Your task to perform on an android device: Search for pizza restaurants on Maps Image 0: 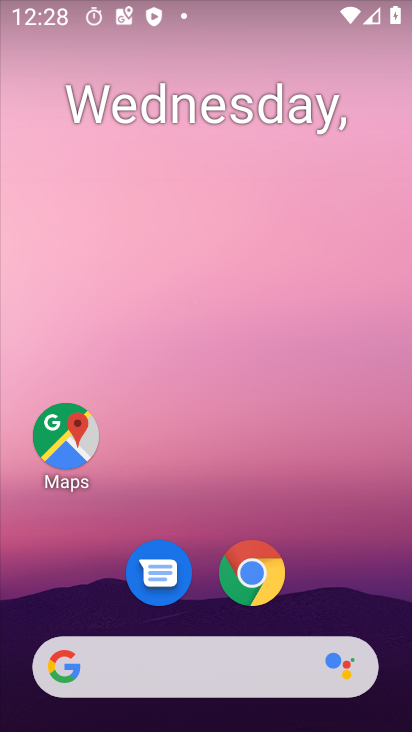
Step 0: drag from (297, 366) to (255, 189)
Your task to perform on an android device: Search for pizza restaurants on Maps Image 1: 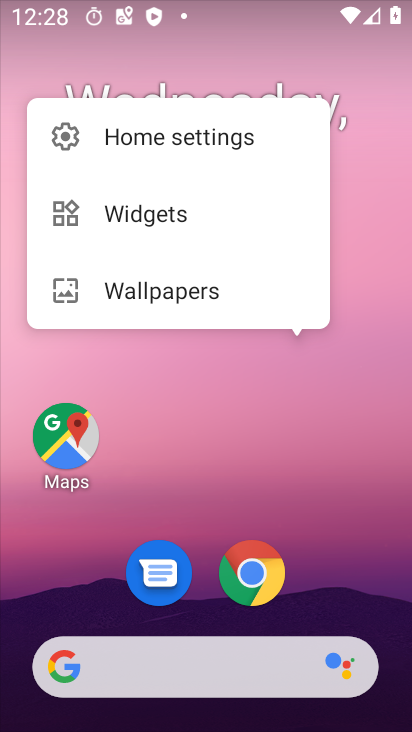
Step 1: click (271, 141)
Your task to perform on an android device: Search for pizza restaurants on Maps Image 2: 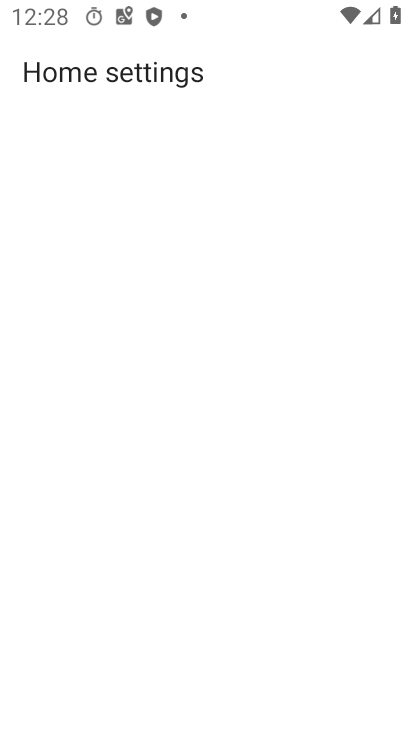
Step 2: click (271, 292)
Your task to perform on an android device: Search for pizza restaurants on Maps Image 3: 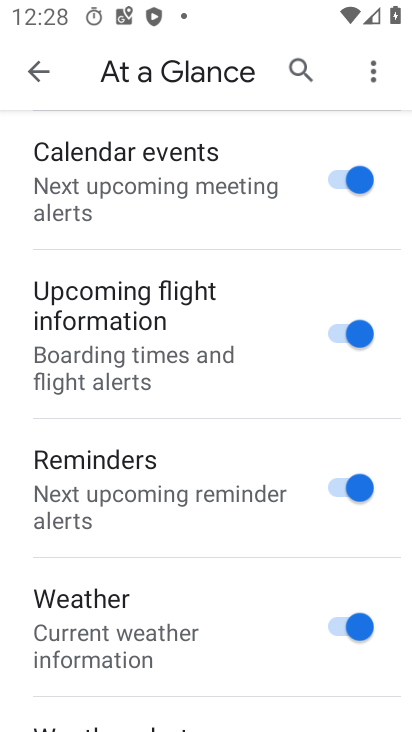
Step 3: click (41, 63)
Your task to perform on an android device: Search for pizza restaurants on Maps Image 4: 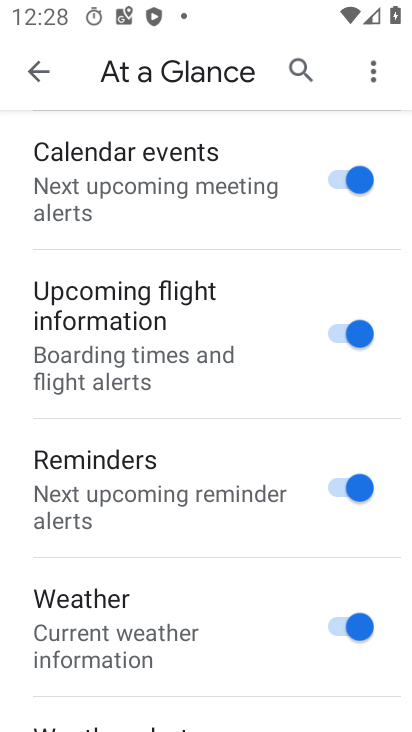
Step 4: click (40, 63)
Your task to perform on an android device: Search for pizza restaurants on Maps Image 5: 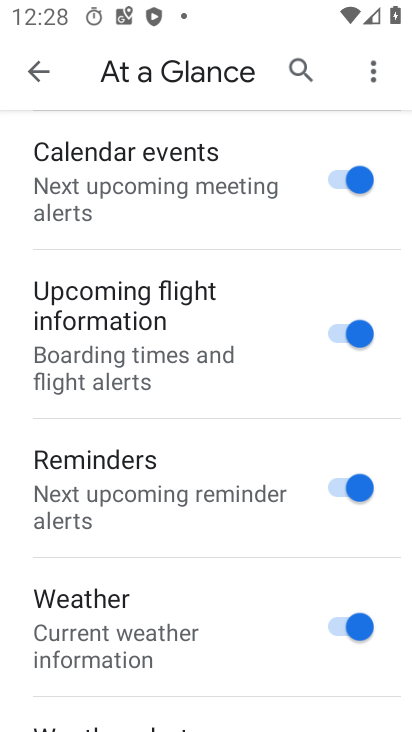
Step 5: click (38, 71)
Your task to perform on an android device: Search for pizza restaurants on Maps Image 6: 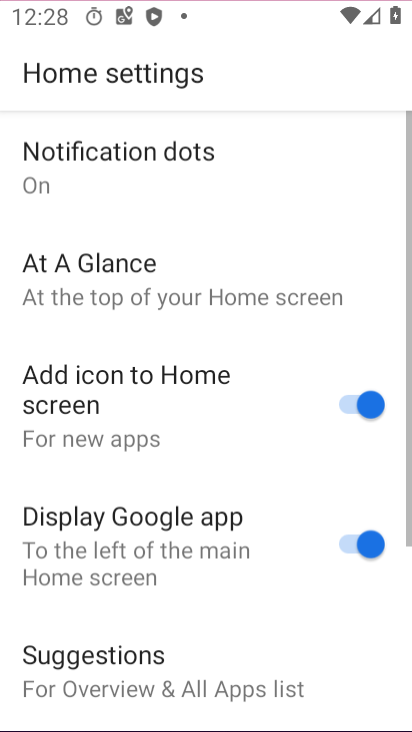
Step 6: click (45, 70)
Your task to perform on an android device: Search for pizza restaurants on Maps Image 7: 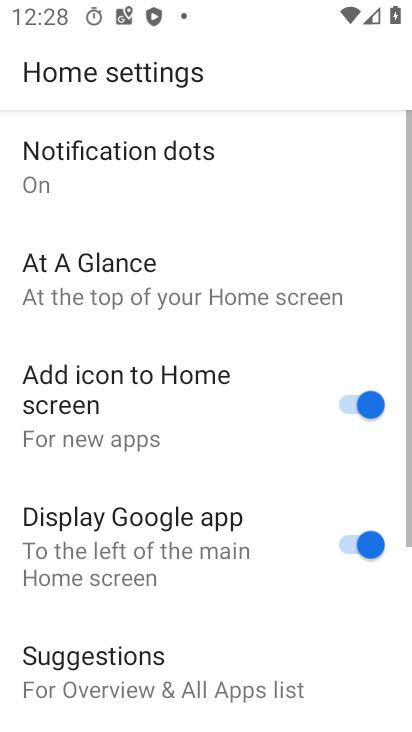
Step 7: click (46, 71)
Your task to perform on an android device: Search for pizza restaurants on Maps Image 8: 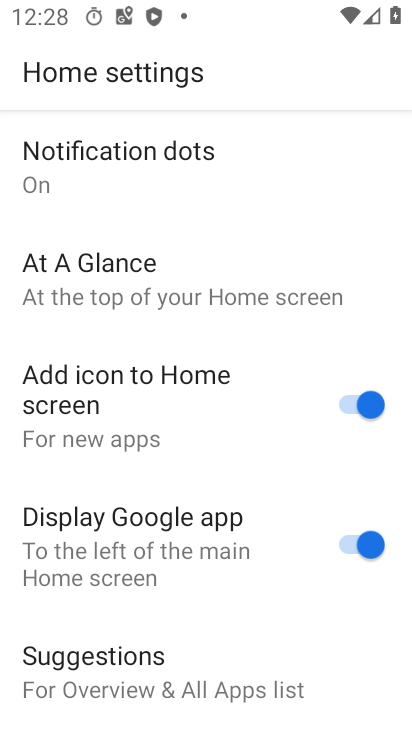
Step 8: press back button
Your task to perform on an android device: Search for pizza restaurants on Maps Image 9: 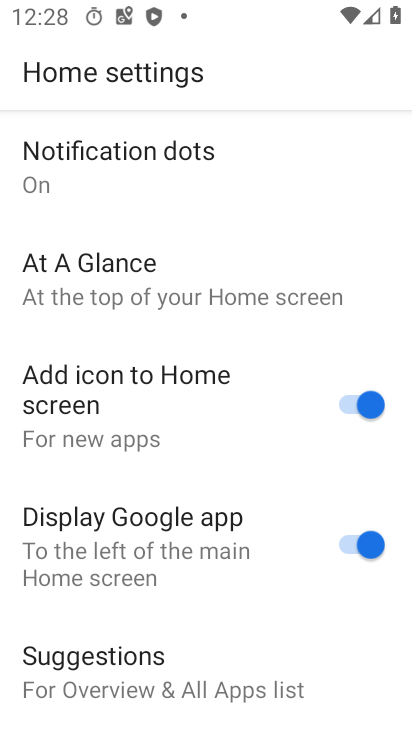
Step 9: press back button
Your task to perform on an android device: Search for pizza restaurants on Maps Image 10: 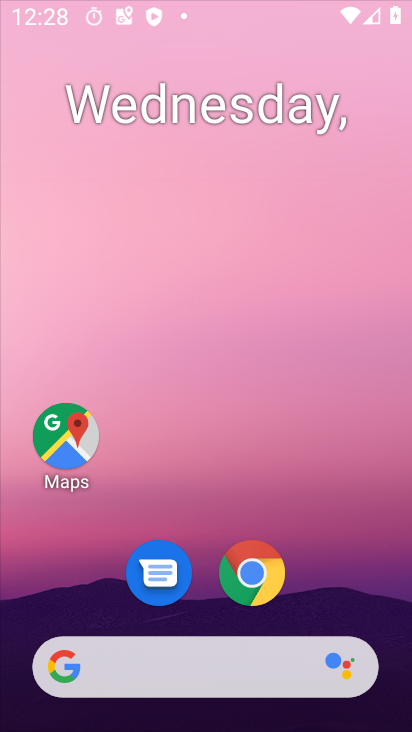
Step 10: press back button
Your task to perform on an android device: Search for pizza restaurants on Maps Image 11: 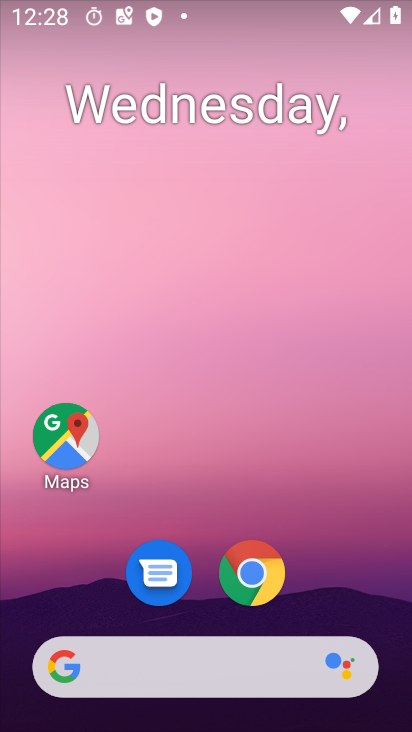
Step 11: drag from (288, 571) to (198, 236)
Your task to perform on an android device: Search for pizza restaurants on Maps Image 12: 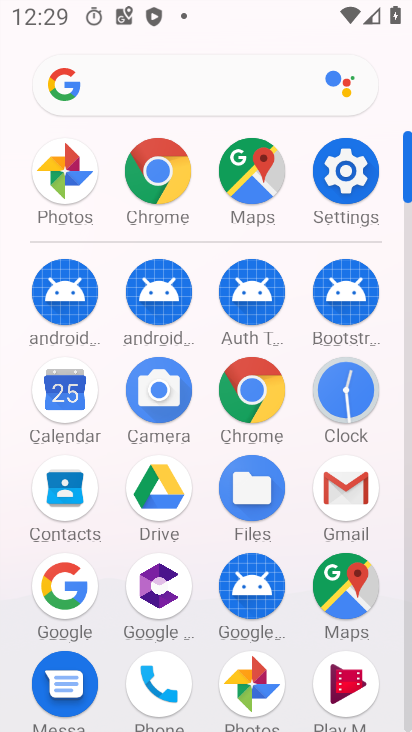
Step 12: click (341, 594)
Your task to perform on an android device: Search for pizza restaurants on Maps Image 13: 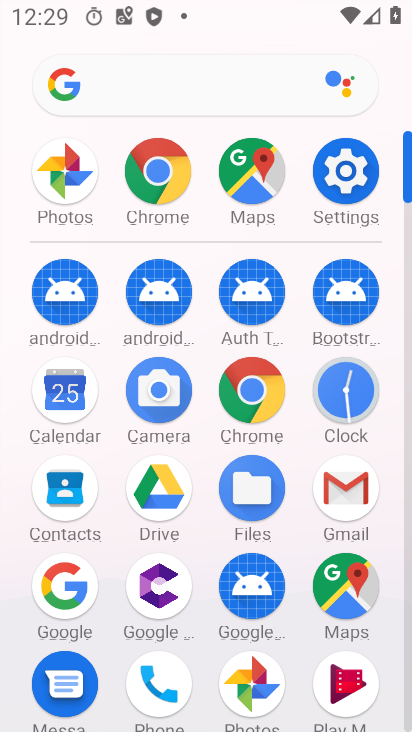
Step 13: click (345, 593)
Your task to perform on an android device: Search for pizza restaurants on Maps Image 14: 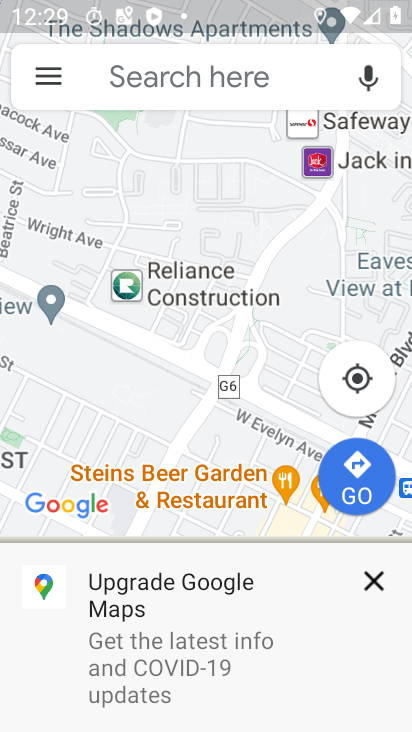
Step 14: click (114, 84)
Your task to perform on an android device: Search for pizza restaurants on Maps Image 15: 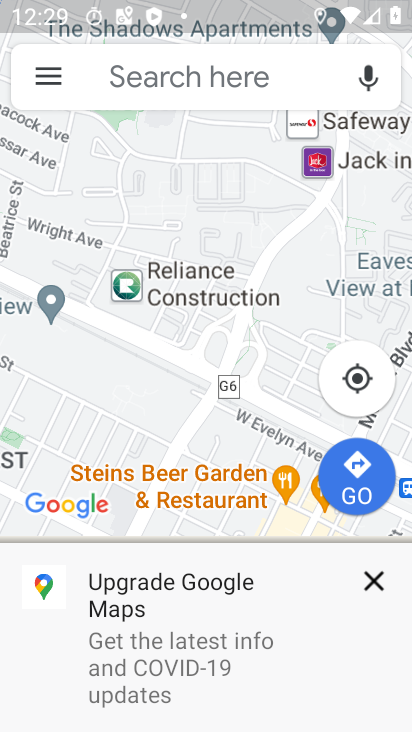
Step 15: click (118, 84)
Your task to perform on an android device: Search for pizza restaurants on Maps Image 16: 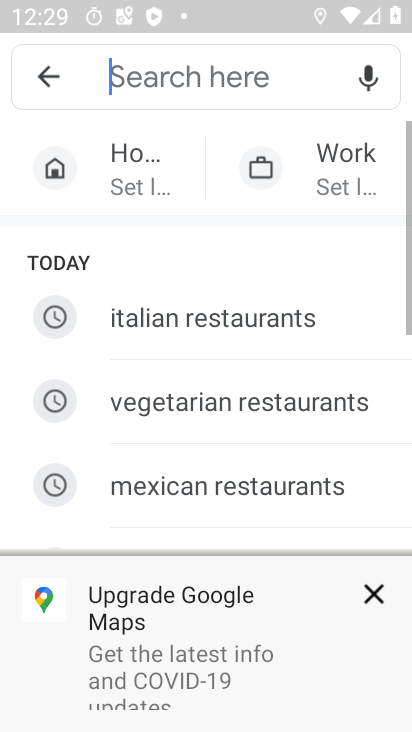
Step 16: click (119, 81)
Your task to perform on an android device: Search for pizza restaurants on Maps Image 17: 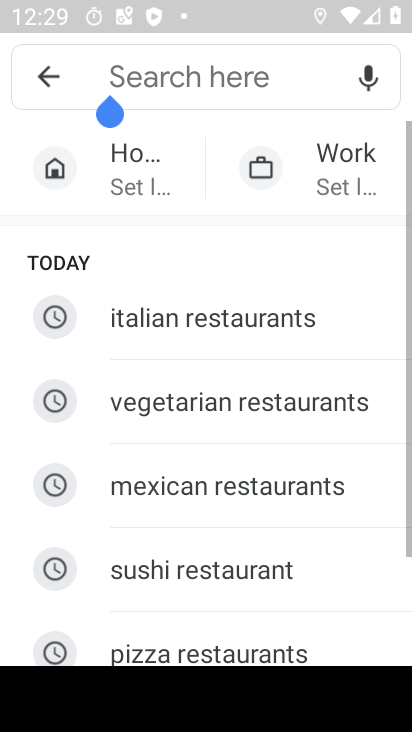
Step 17: click (120, 80)
Your task to perform on an android device: Search for pizza restaurants on Maps Image 18: 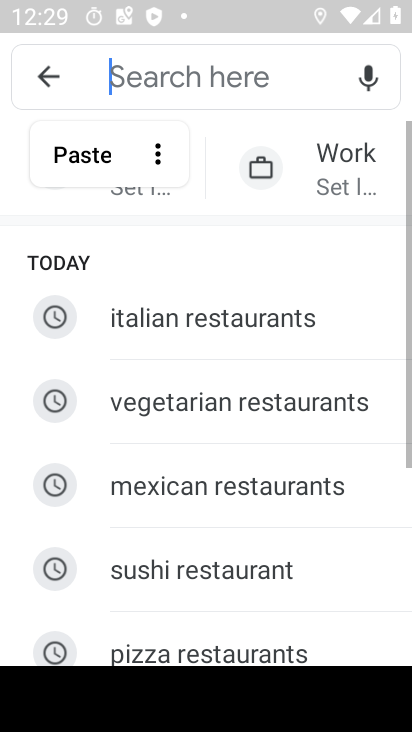
Step 18: click (122, 79)
Your task to perform on an android device: Search for pizza restaurants on Maps Image 19: 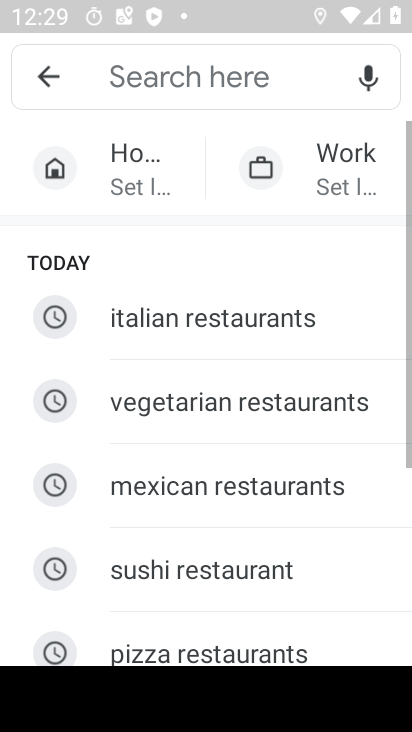
Step 19: click (122, 79)
Your task to perform on an android device: Search for pizza restaurants on Maps Image 20: 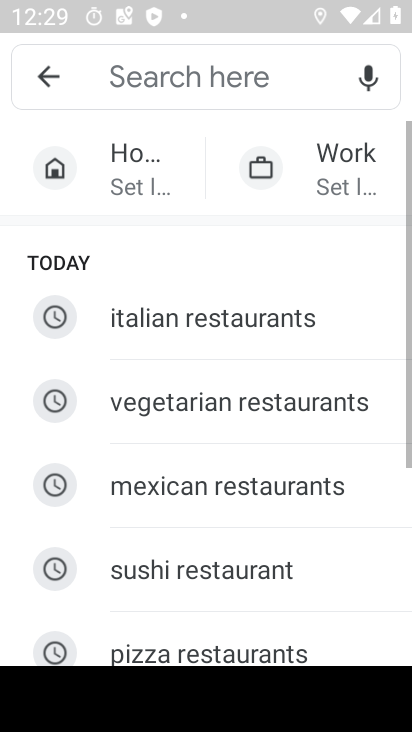
Step 20: click (133, 89)
Your task to perform on an android device: Search for pizza restaurants on Maps Image 21: 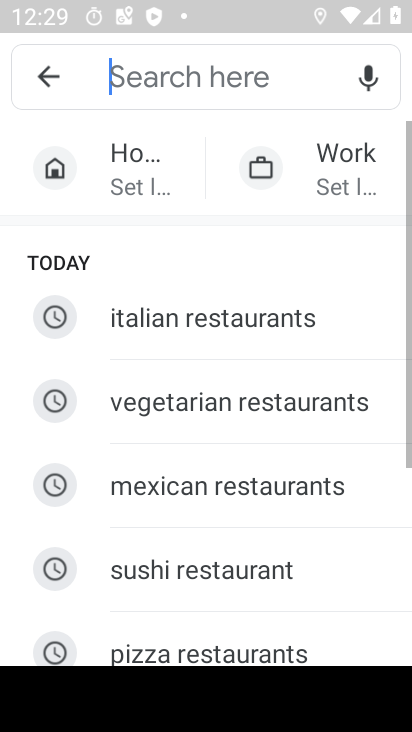
Step 21: click (133, 89)
Your task to perform on an android device: Search for pizza restaurants on Maps Image 22: 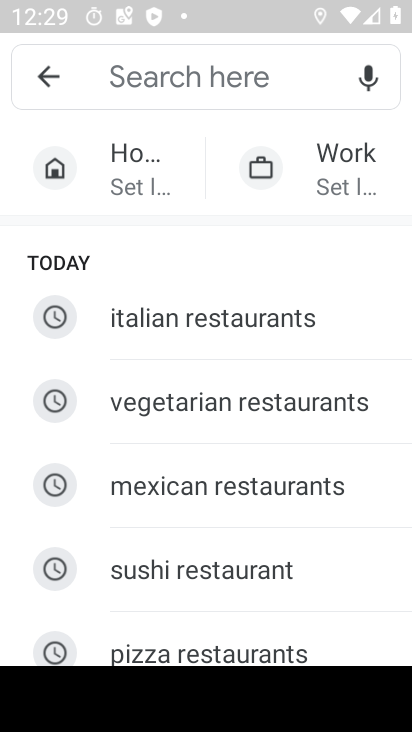
Step 22: click (161, 650)
Your task to perform on an android device: Search for pizza restaurants on Maps Image 23: 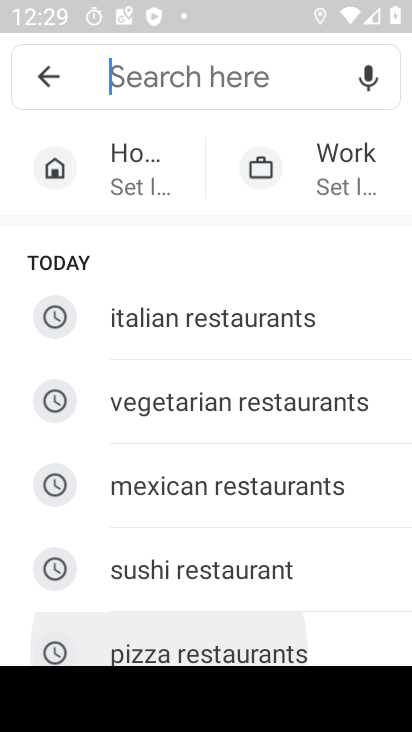
Step 23: click (162, 650)
Your task to perform on an android device: Search for pizza restaurants on Maps Image 24: 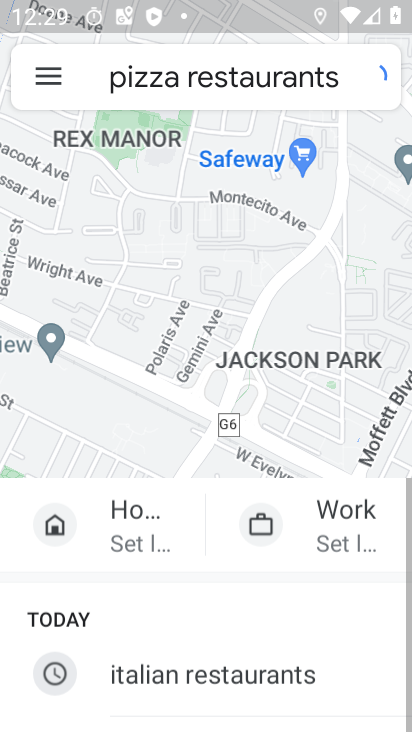
Step 24: click (164, 647)
Your task to perform on an android device: Search for pizza restaurants on Maps Image 25: 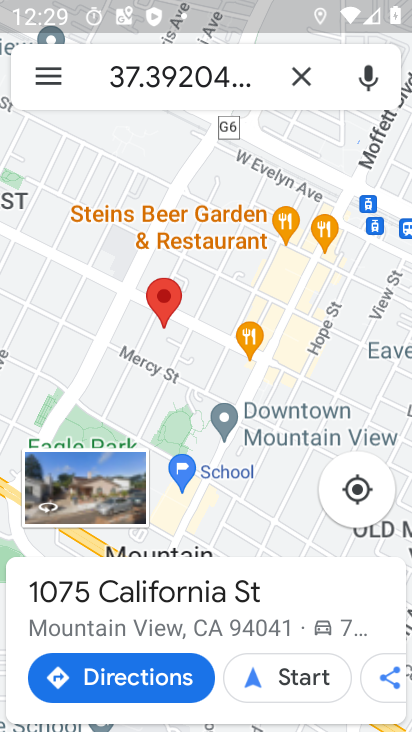
Step 25: task complete